Your task to perform on an android device: toggle notifications settings in the gmail app Image 0: 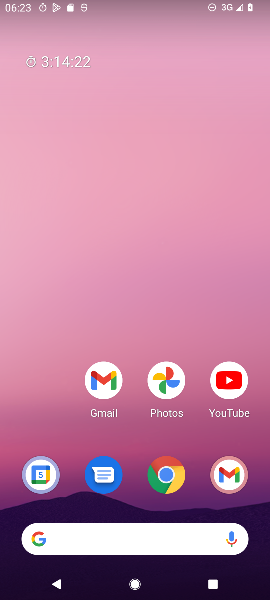
Step 0: press home button
Your task to perform on an android device: toggle notifications settings in the gmail app Image 1: 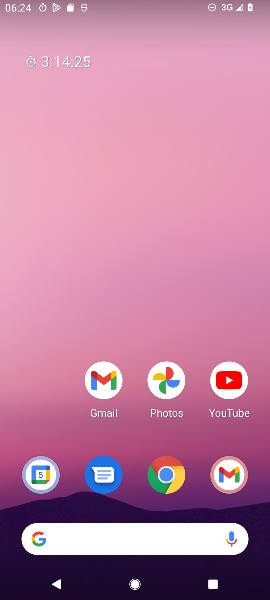
Step 1: drag from (58, 421) to (72, 247)
Your task to perform on an android device: toggle notifications settings in the gmail app Image 2: 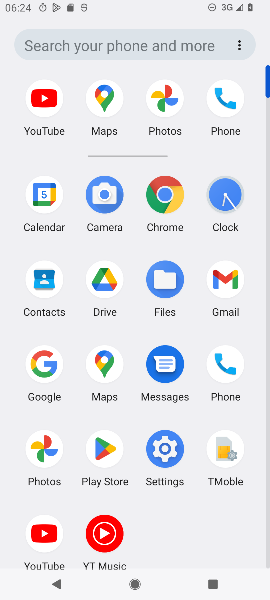
Step 2: click (227, 277)
Your task to perform on an android device: toggle notifications settings in the gmail app Image 3: 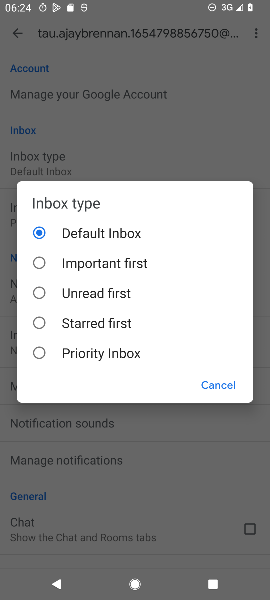
Step 3: click (213, 384)
Your task to perform on an android device: toggle notifications settings in the gmail app Image 4: 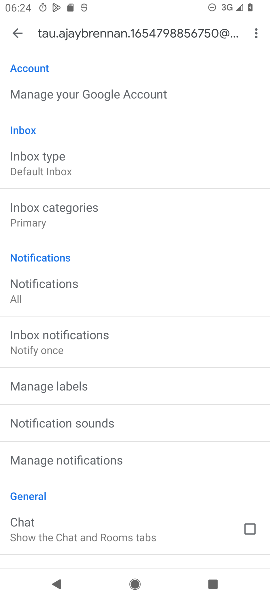
Step 4: drag from (162, 428) to (166, 373)
Your task to perform on an android device: toggle notifications settings in the gmail app Image 5: 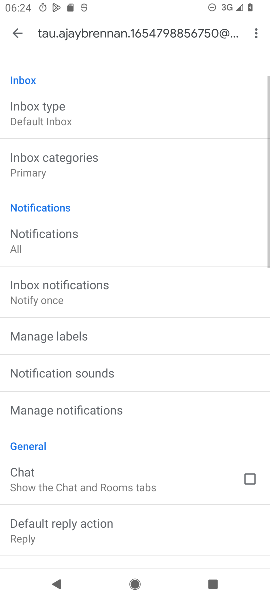
Step 5: drag from (175, 430) to (178, 350)
Your task to perform on an android device: toggle notifications settings in the gmail app Image 6: 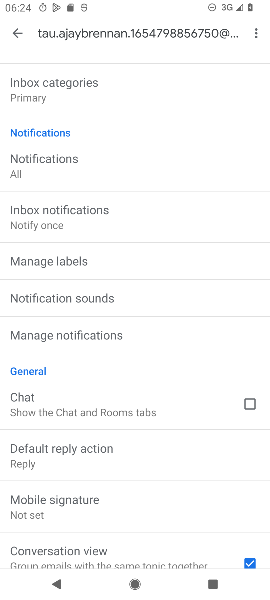
Step 6: drag from (185, 425) to (188, 345)
Your task to perform on an android device: toggle notifications settings in the gmail app Image 7: 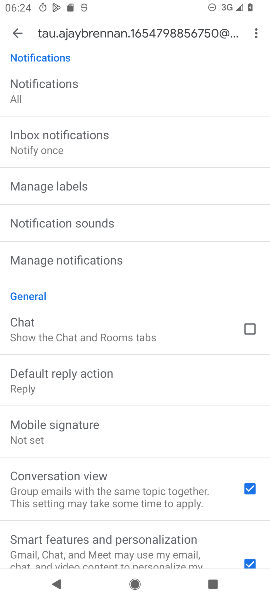
Step 7: drag from (182, 438) to (182, 351)
Your task to perform on an android device: toggle notifications settings in the gmail app Image 8: 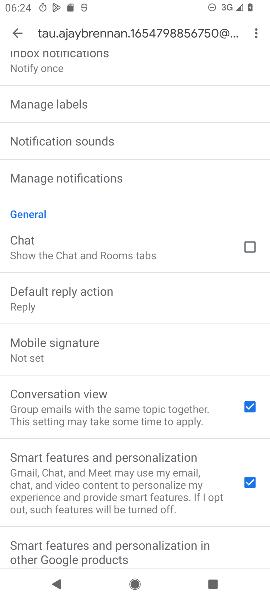
Step 8: drag from (181, 343) to (181, 251)
Your task to perform on an android device: toggle notifications settings in the gmail app Image 9: 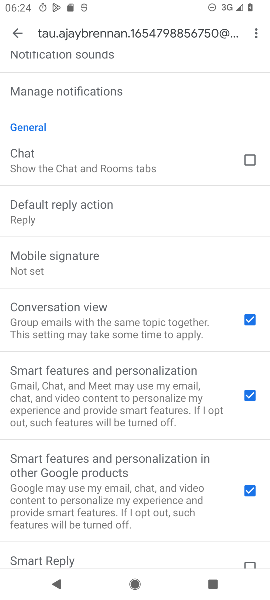
Step 9: drag from (161, 339) to (170, 229)
Your task to perform on an android device: toggle notifications settings in the gmail app Image 10: 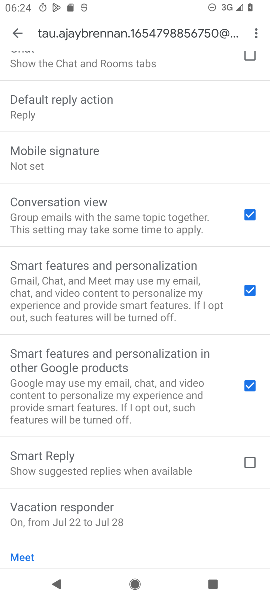
Step 10: drag from (172, 370) to (169, 266)
Your task to perform on an android device: toggle notifications settings in the gmail app Image 11: 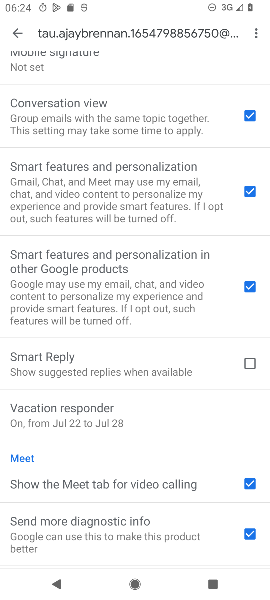
Step 11: drag from (176, 169) to (177, 240)
Your task to perform on an android device: toggle notifications settings in the gmail app Image 12: 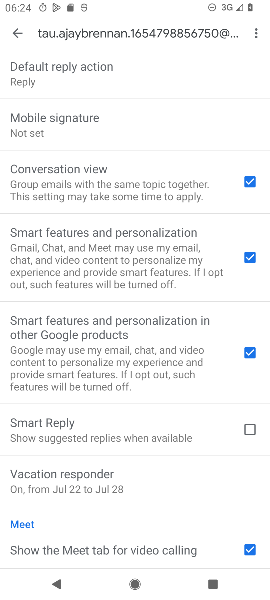
Step 12: drag from (171, 180) to (173, 283)
Your task to perform on an android device: toggle notifications settings in the gmail app Image 13: 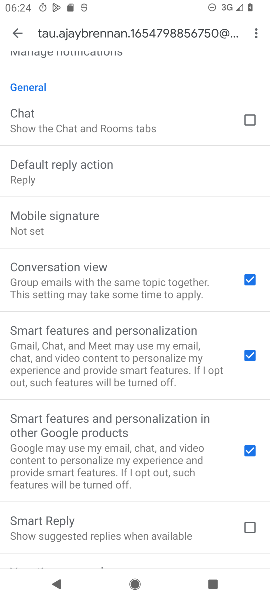
Step 13: drag from (168, 160) to (175, 297)
Your task to perform on an android device: toggle notifications settings in the gmail app Image 14: 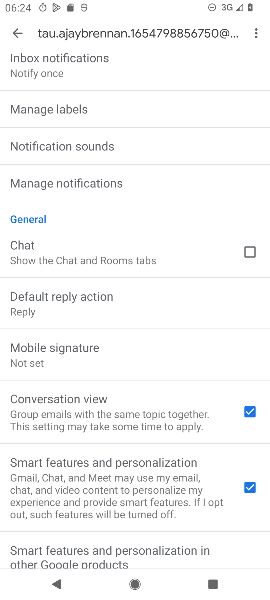
Step 14: drag from (172, 129) to (174, 253)
Your task to perform on an android device: toggle notifications settings in the gmail app Image 15: 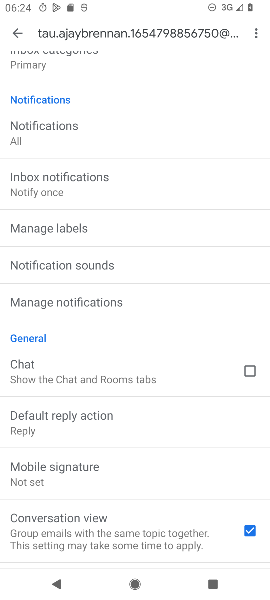
Step 15: drag from (161, 125) to (168, 225)
Your task to perform on an android device: toggle notifications settings in the gmail app Image 16: 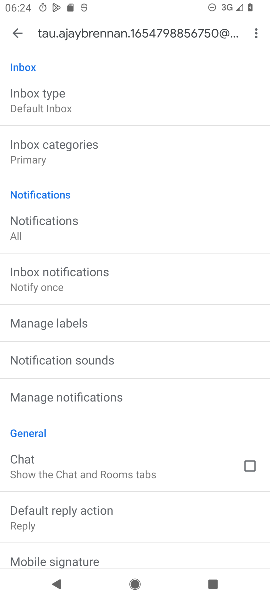
Step 16: click (139, 390)
Your task to perform on an android device: toggle notifications settings in the gmail app Image 17: 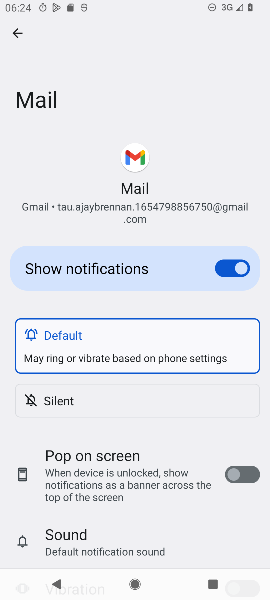
Step 17: click (226, 268)
Your task to perform on an android device: toggle notifications settings in the gmail app Image 18: 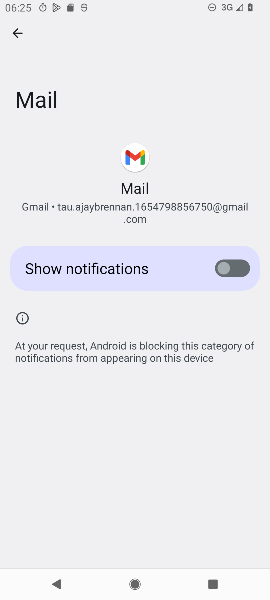
Step 18: task complete